Your task to perform on an android device: Set the phone to "Do not disturb". Image 0: 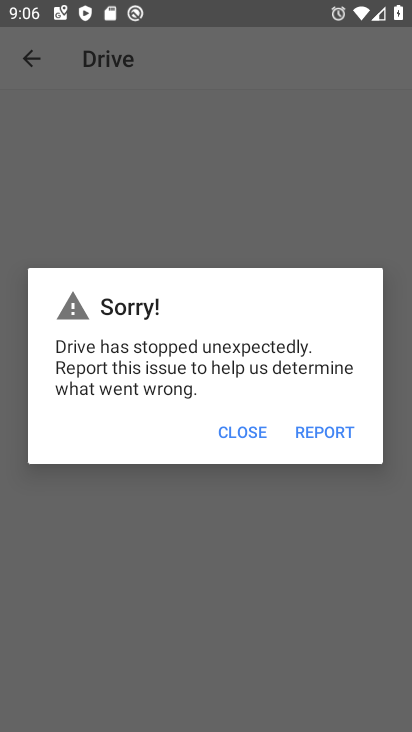
Step 0: press home button
Your task to perform on an android device: Set the phone to "Do not disturb". Image 1: 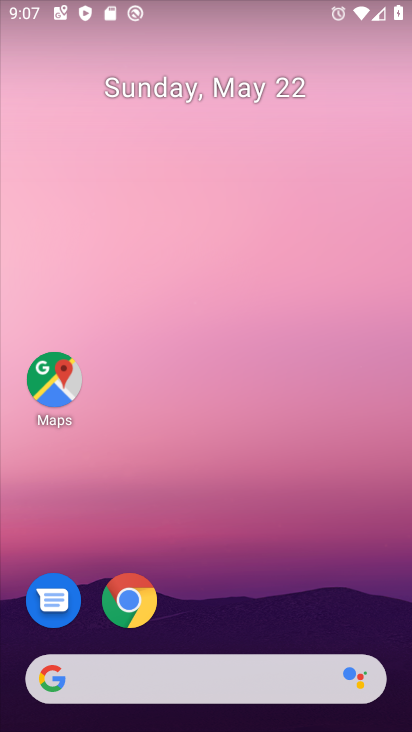
Step 1: drag from (272, 10) to (245, 328)
Your task to perform on an android device: Set the phone to "Do not disturb". Image 2: 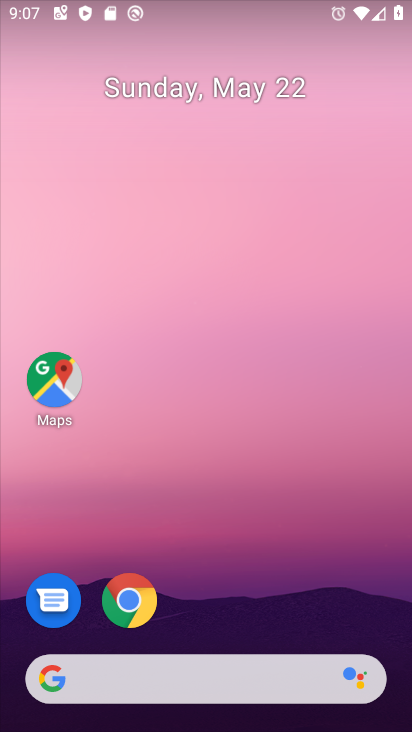
Step 2: drag from (264, 12) to (282, 575)
Your task to perform on an android device: Set the phone to "Do not disturb". Image 3: 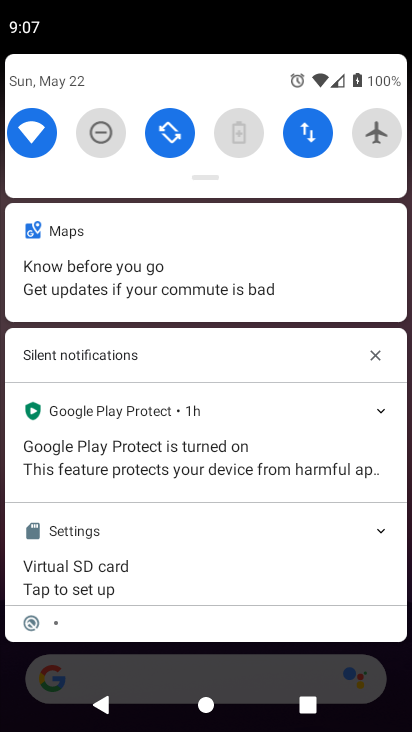
Step 3: drag from (220, 192) to (237, 464)
Your task to perform on an android device: Set the phone to "Do not disturb". Image 4: 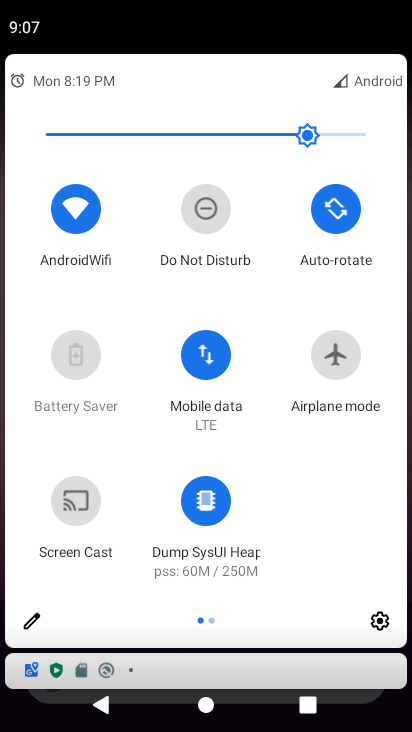
Step 4: click (216, 206)
Your task to perform on an android device: Set the phone to "Do not disturb". Image 5: 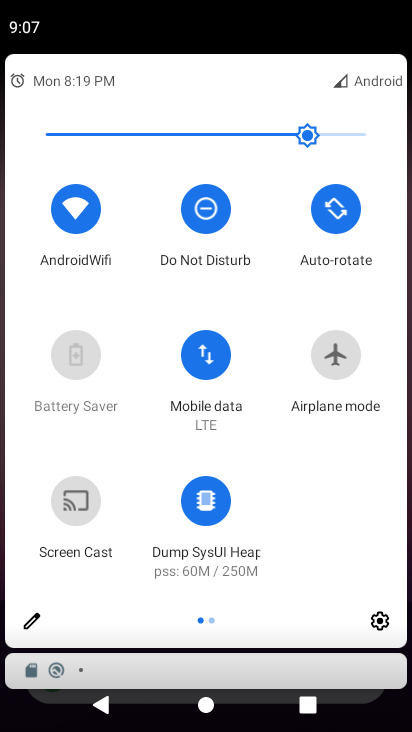
Step 5: task complete